Your task to perform on an android device: turn notification dots on Image 0: 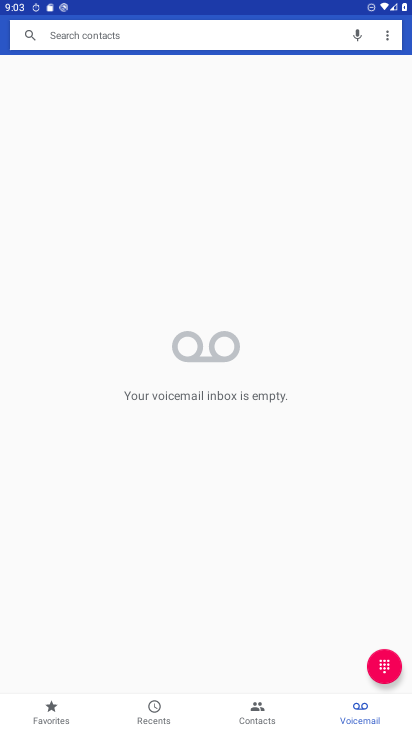
Step 0: press home button
Your task to perform on an android device: turn notification dots on Image 1: 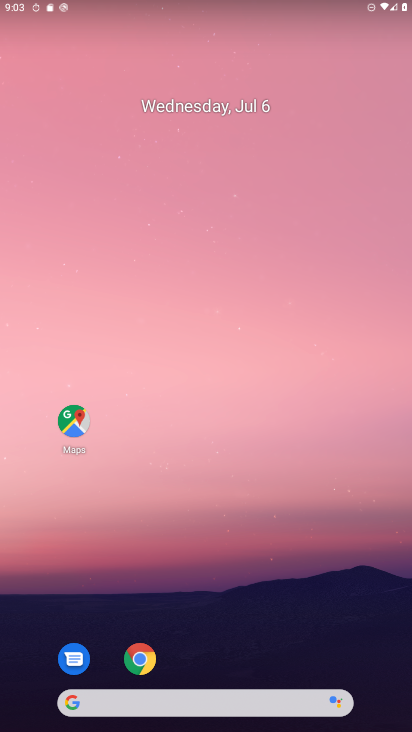
Step 1: drag from (379, 632) to (389, 180)
Your task to perform on an android device: turn notification dots on Image 2: 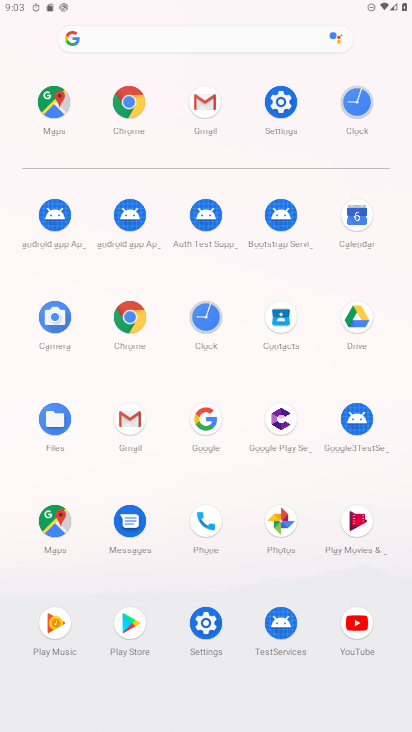
Step 2: click (202, 626)
Your task to perform on an android device: turn notification dots on Image 3: 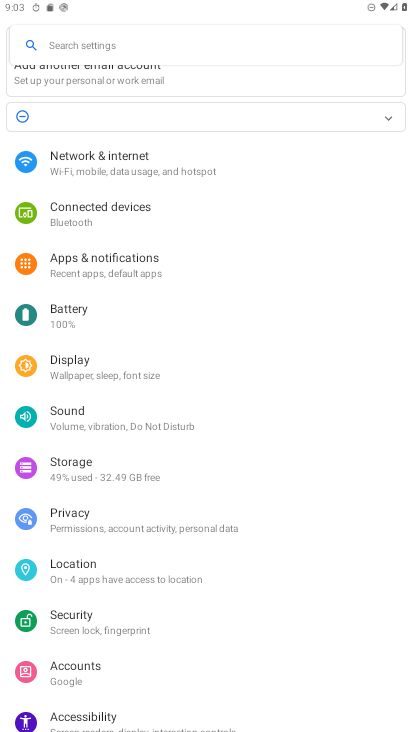
Step 3: click (132, 266)
Your task to perform on an android device: turn notification dots on Image 4: 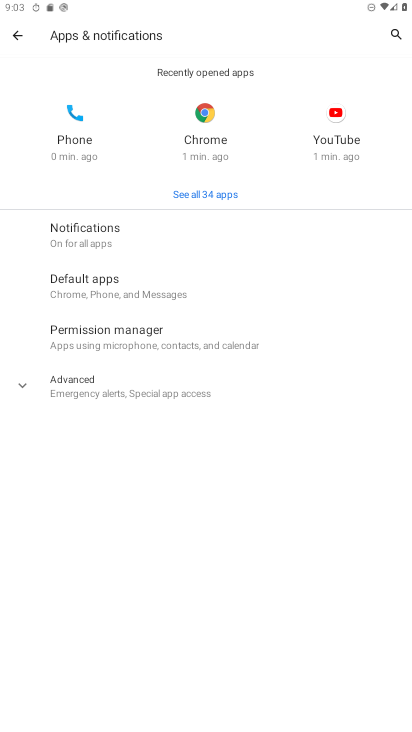
Step 4: click (110, 234)
Your task to perform on an android device: turn notification dots on Image 5: 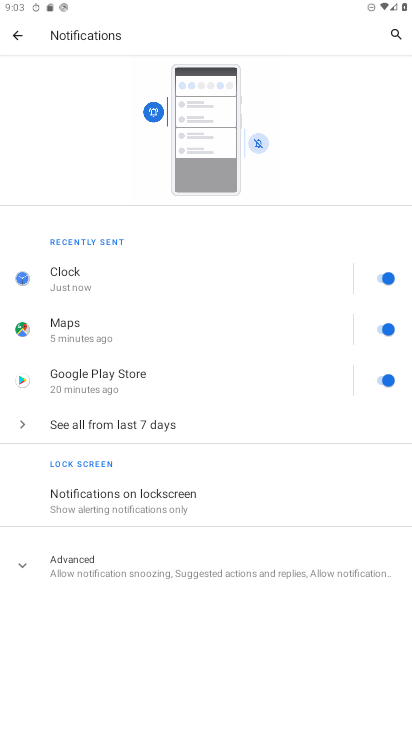
Step 5: click (182, 581)
Your task to perform on an android device: turn notification dots on Image 6: 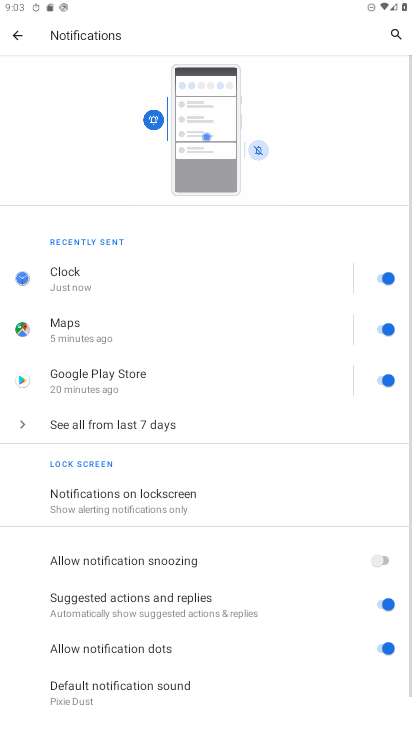
Step 6: task complete